Your task to perform on an android device: open a bookmark in the chrome app Image 0: 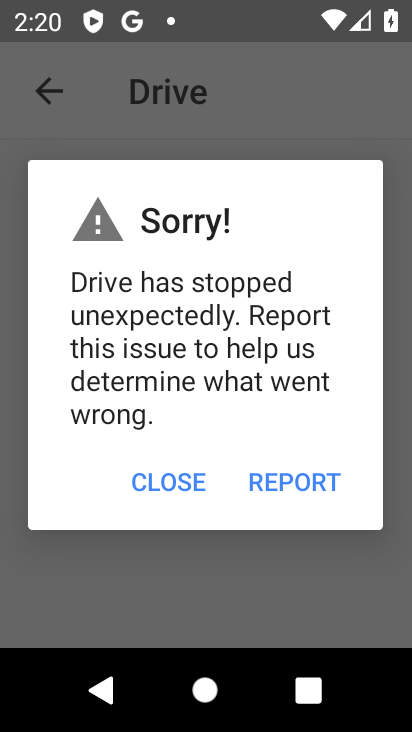
Step 0: press home button
Your task to perform on an android device: open a bookmark in the chrome app Image 1: 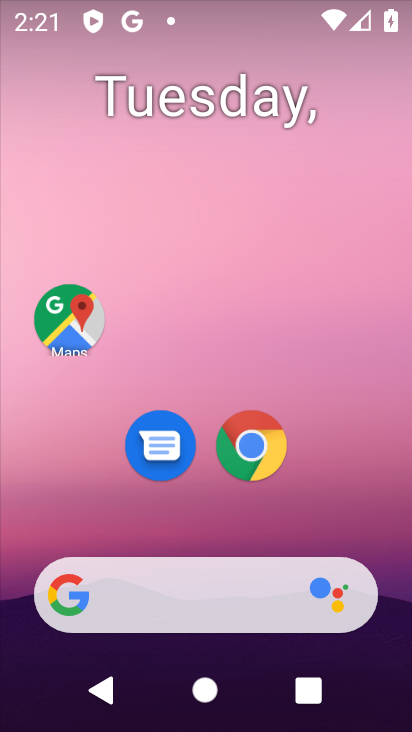
Step 1: click (259, 456)
Your task to perform on an android device: open a bookmark in the chrome app Image 2: 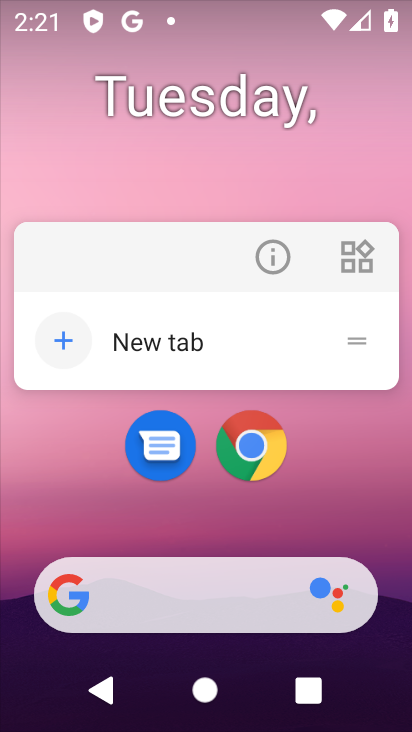
Step 2: click (255, 450)
Your task to perform on an android device: open a bookmark in the chrome app Image 3: 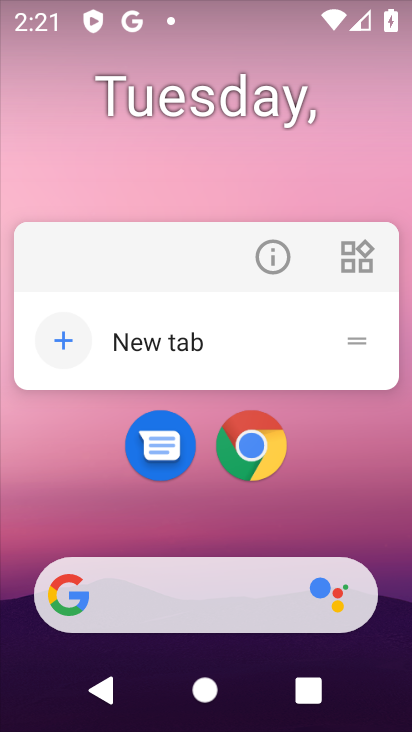
Step 3: click (255, 450)
Your task to perform on an android device: open a bookmark in the chrome app Image 4: 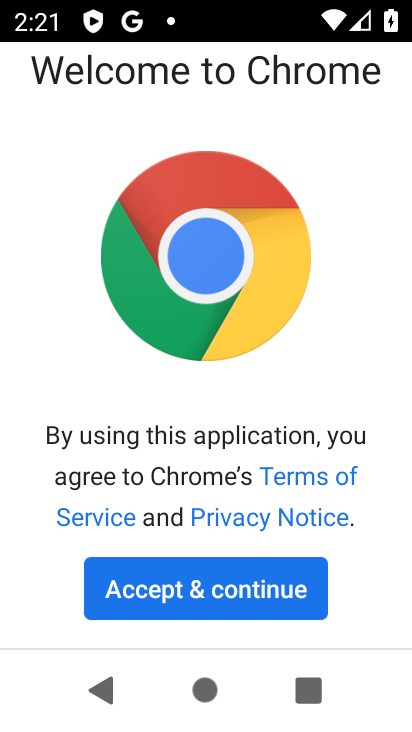
Step 4: click (248, 593)
Your task to perform on an android device: open a bookmark in the chrome app Image 5: 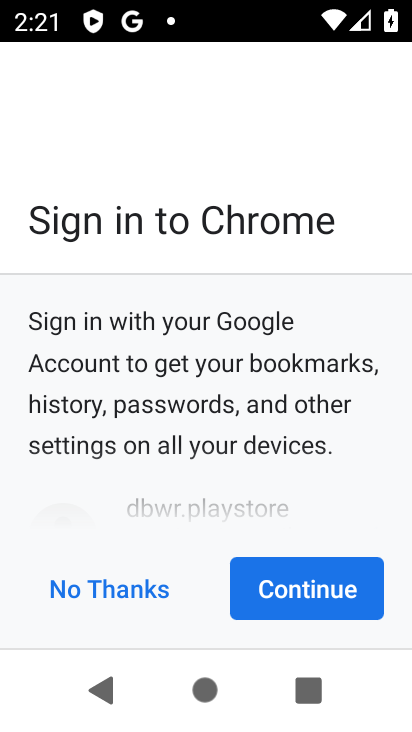
Step 5: click (278, 589)
Your task to perform on an android device: open a bookmark in the chrome app Image 6: 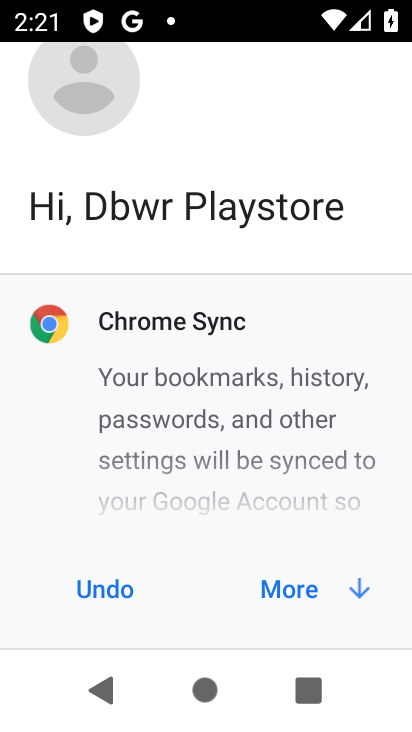
Step 6: click (312, 591)
Your task to perform on an android device: open a bookmark in the chrome app Image 7: 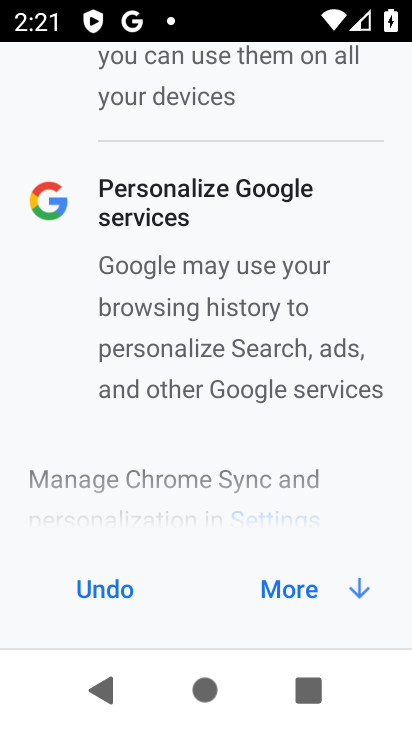
Step 7: click (312, 591)
Your task to perform on an android device: open a bookmark in the chrome app Image 8: 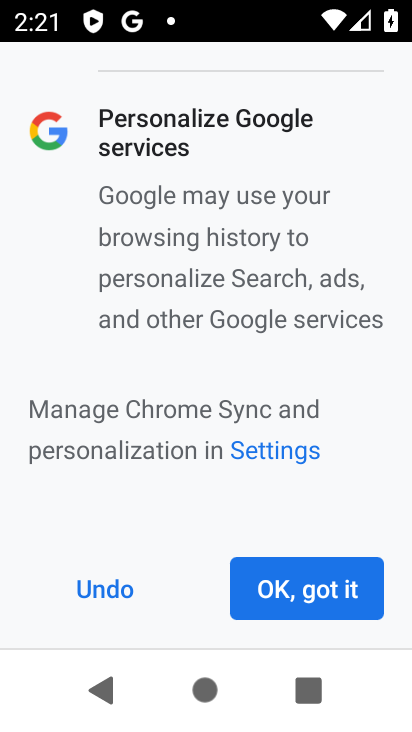
Step 8: click (312, 591)
Your task to perform on an android device: open a bookmark in the chrome app Image 9: 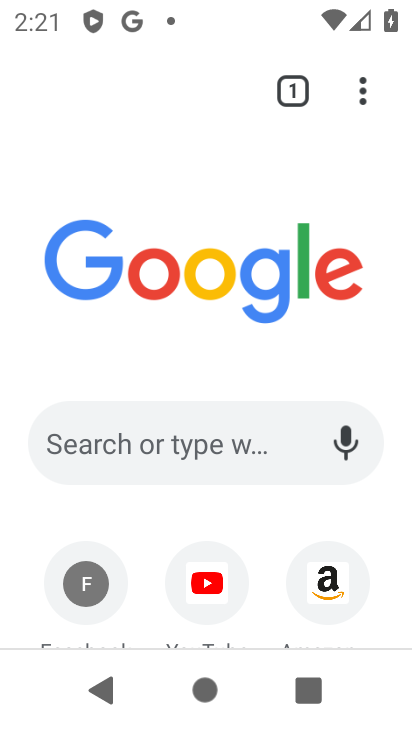
Step 9: click (368, 101)
Your task to perform on an android device: open a bookmark in the chrome app Image 10: 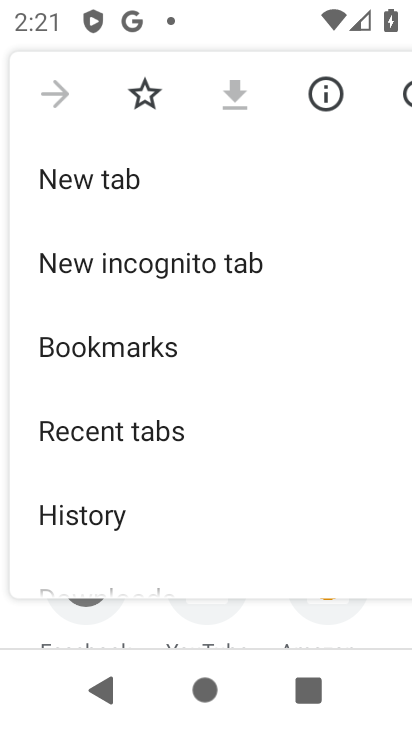
Step 10: click (165, 348)
Your task to perform on an android device: open a bookmark in the chrome app Image 11: 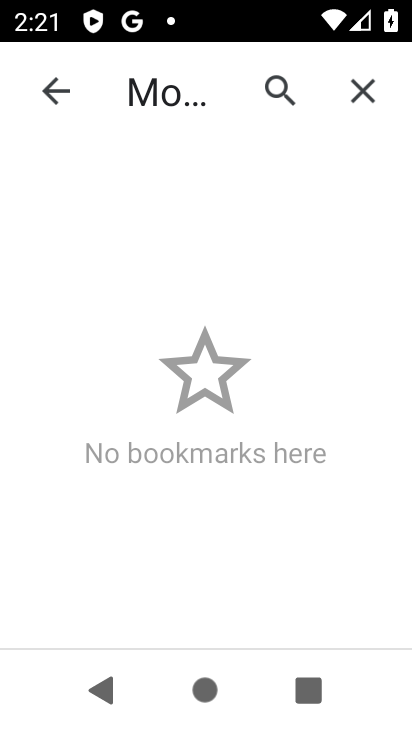
Step 11: task complete